Your task to perform on an android device: Open battery settings Image 0: 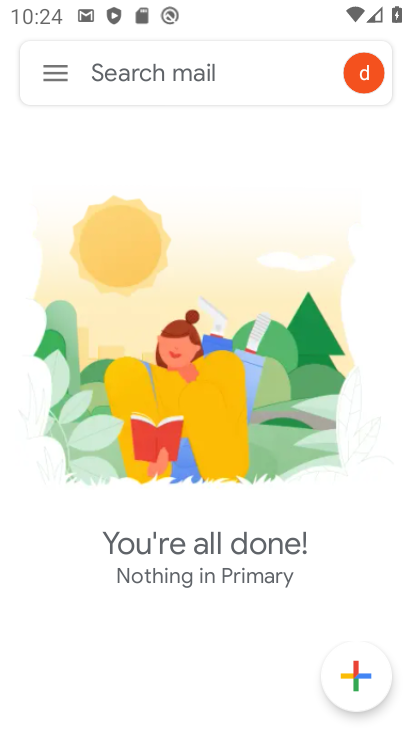
Step 0: press home button
Your task to perform on an android device: Open battery settings Image 1: 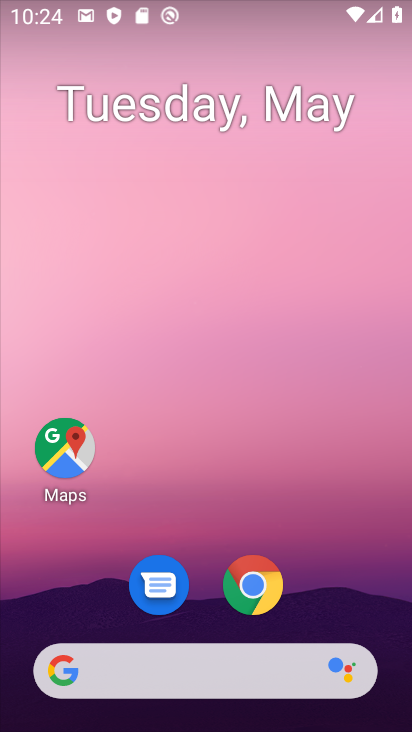
Step 1: drag from (310, 533) to (330, 37)
Your task to perform on an android device: Open battery settings Image 2: 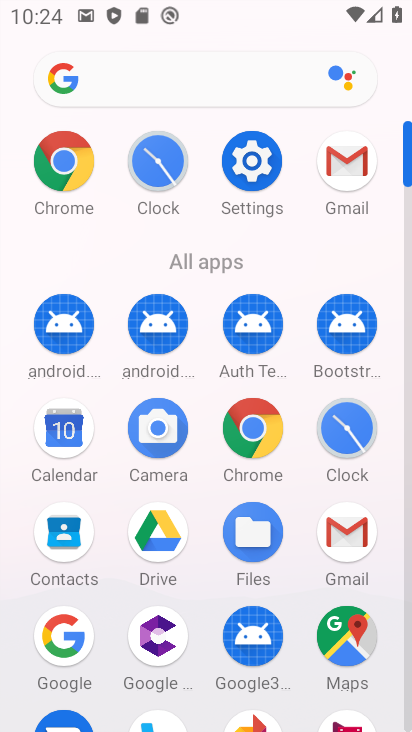
Step 2: click (256, 163)
Your task to perform on an android device: Open battery settings Image 3: 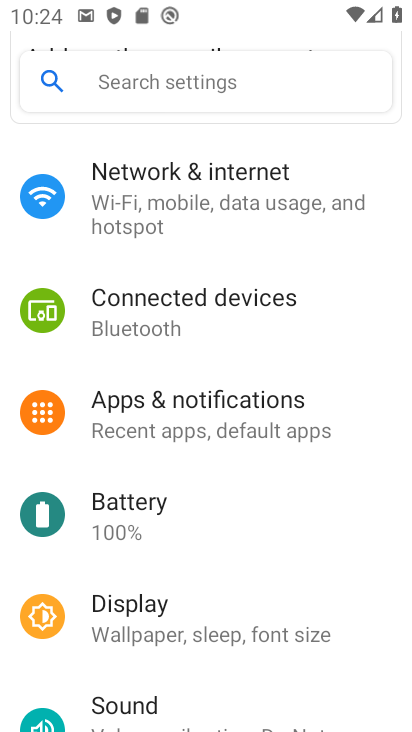
Step 3: click (185, 525)
Your task to perform on an android device: Open battery settings Image 4: 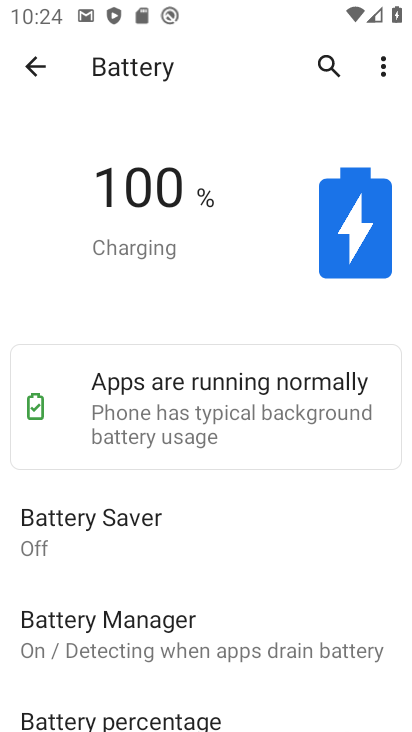
Step 4: task complete